Your task to perform on an android device: toggle location history Image 0: 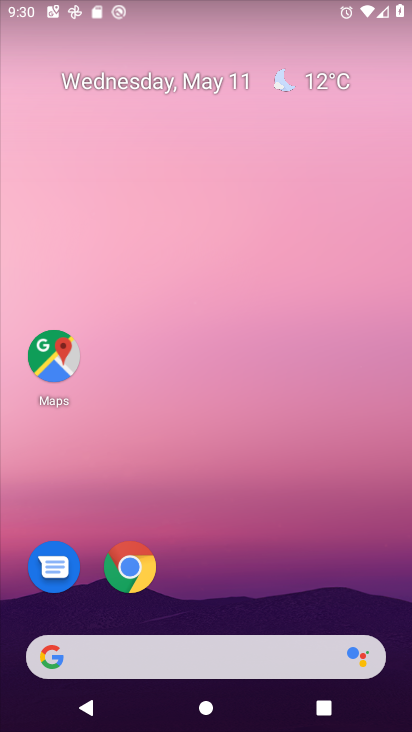
Step 0: drag from (269, 558) to (221, 136)
Your task to perform on an android device: toggle location history Image 1: 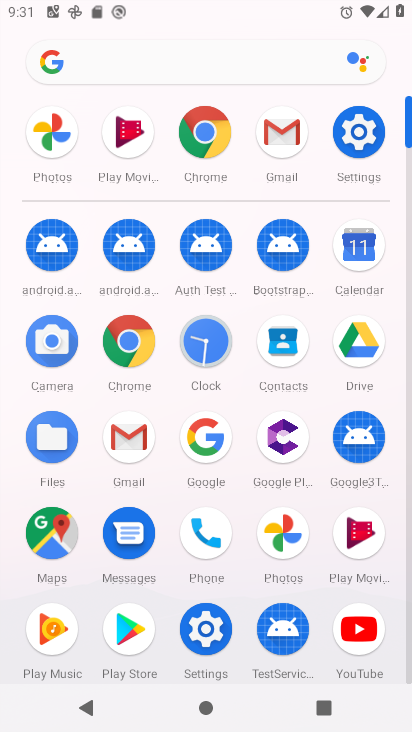
Step 1: click (215, 633)
Your task to perform on an android device: toggle location history Image 2: 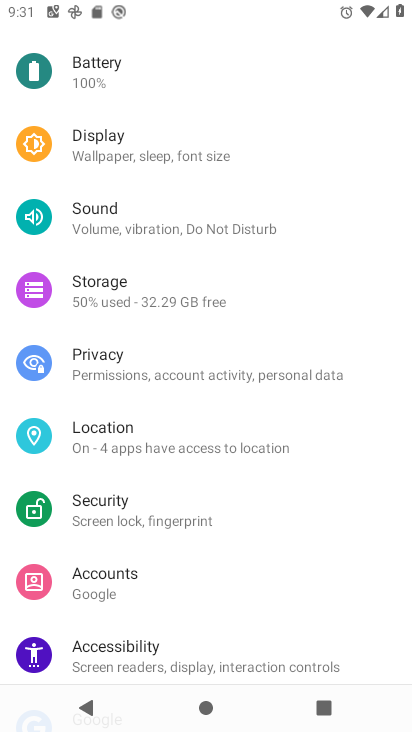
Step 2: click (200, 417)
Your task to perform on an android device: toggle location history Image 3: 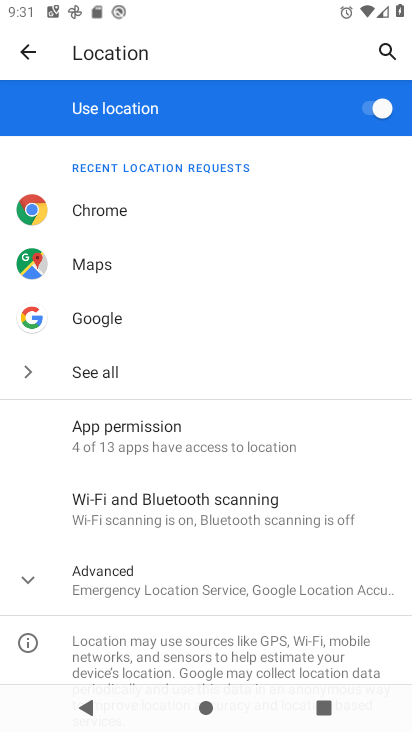
Step 3: click (181, 568)
Your task to perform on an android device: toggle location history Image 4: 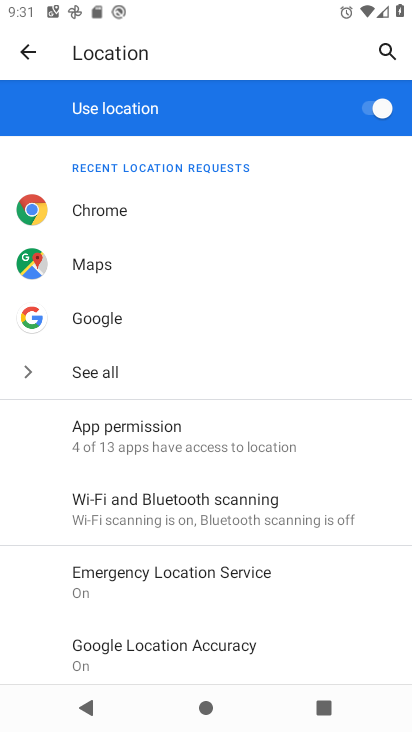
Step 4: drag from (253, 610) to (258, 240)
Your task to perform on an android device: toggle location history Image 5: 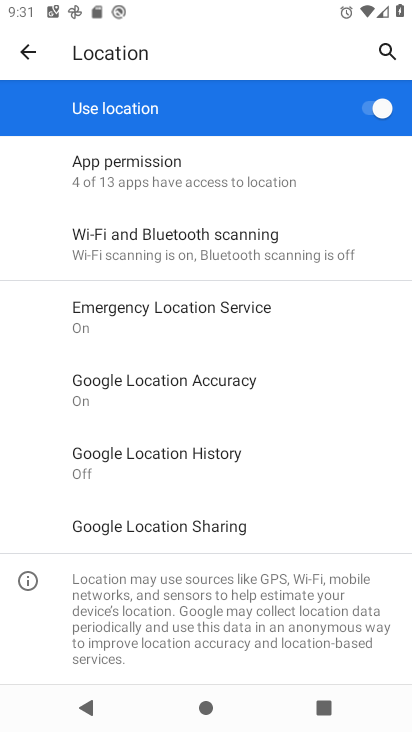
Step 5: click (202, 457)
Your task to perform on an android device: toggle location history Image 6: 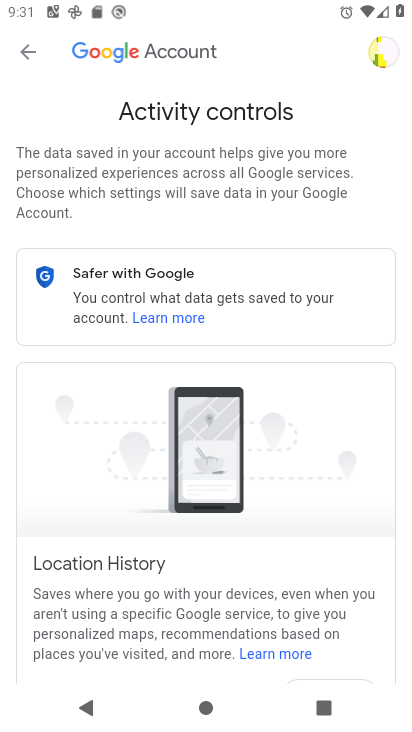
Step 6: drag from (282, 592) to (251, 111)
Your task to perform on an android device: toggle location history Image 7: 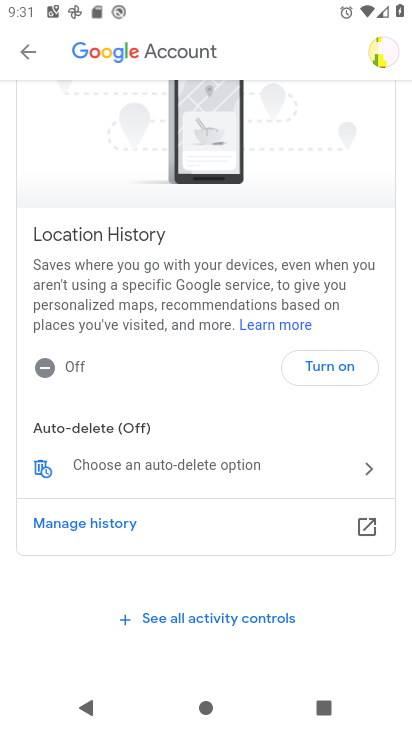
Step 7: drag from (250, 499) to (247, 299)
Your task to perform on an android device: toggle location history Image 8: 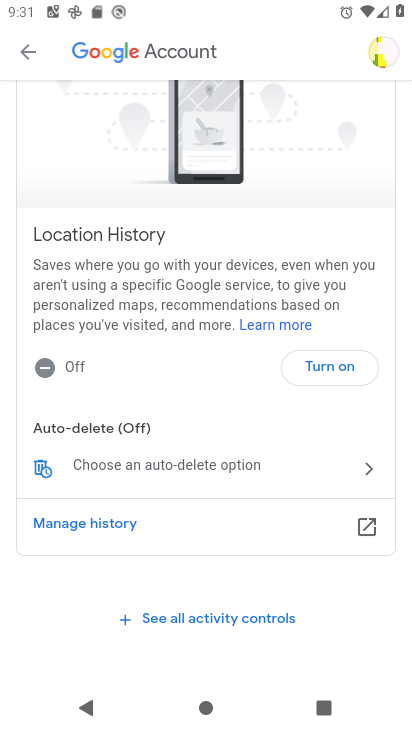
Step 8: click (319, 367)
Your task to perform on an android device: toggle location history Image 9: 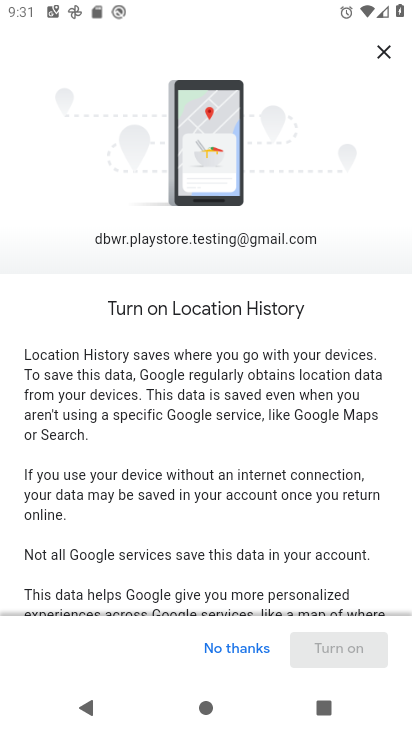
Step 9: drag from (207, 499) to (207, 110)
Your task to perform on an android device: toggle location history Image 10: 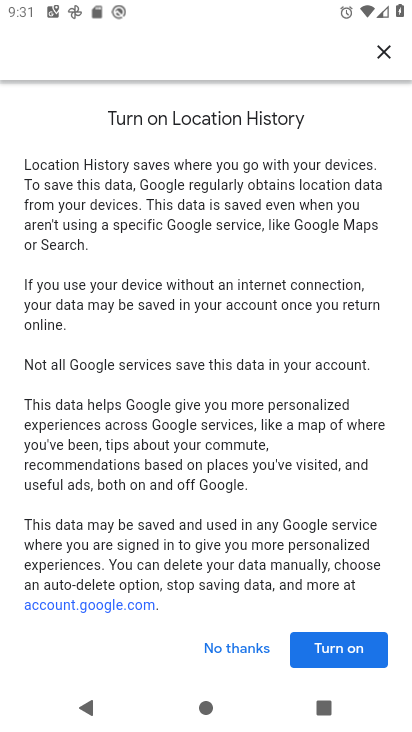
Step 10: click (330, 646)
Your task to perform on an android device: toggle location history Image 11: 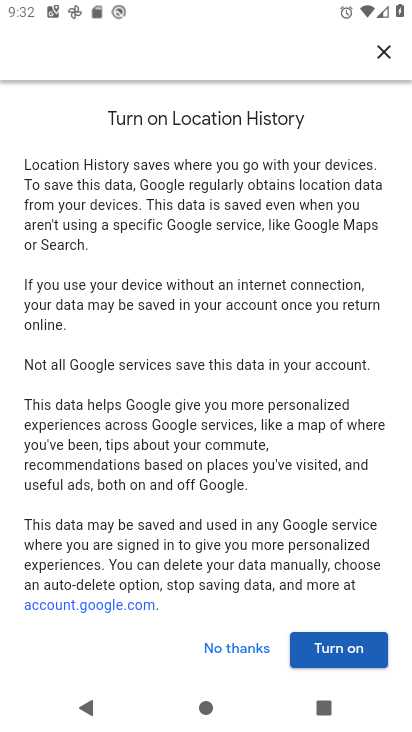
Step 11: click (354, 651)
Your task to perform on an android device: toggle location history Image 12: 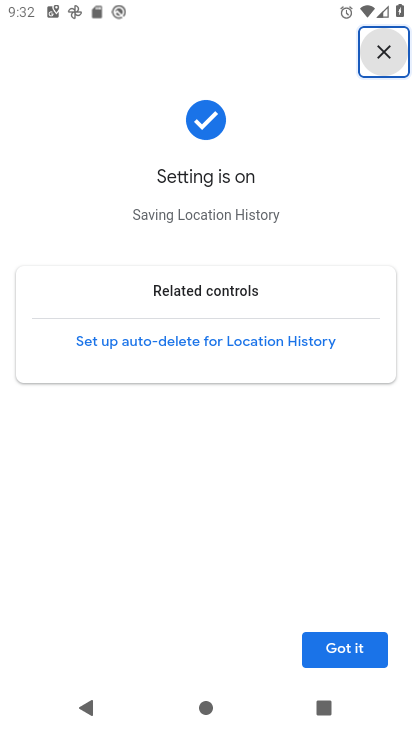
Step 12: click (347, 647)
Your task to perform on an android device: toggle location history Image 13: 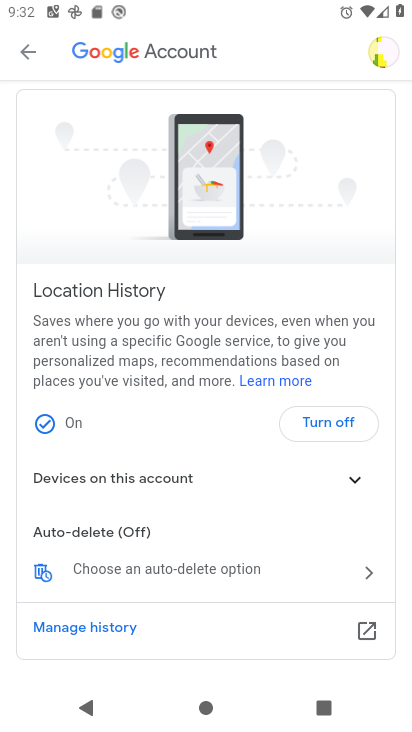
Step 13: task complete